Your task to perform on an android device: toggle show notifications on the lock screen Image 0: 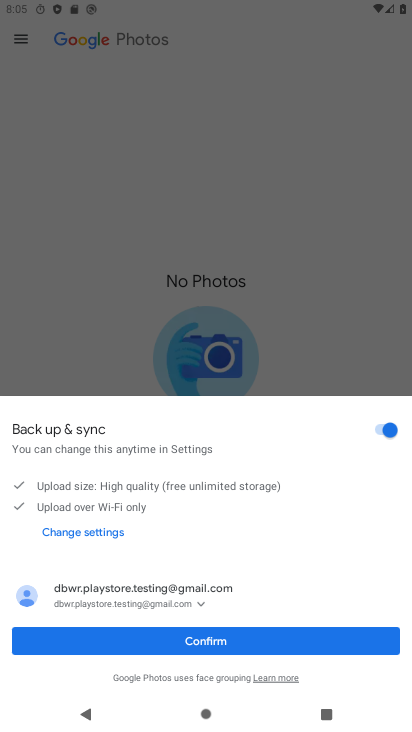
Step 0: press home button
Your task to perform on an android device: toggle show notifications on the lock screen Image 1: 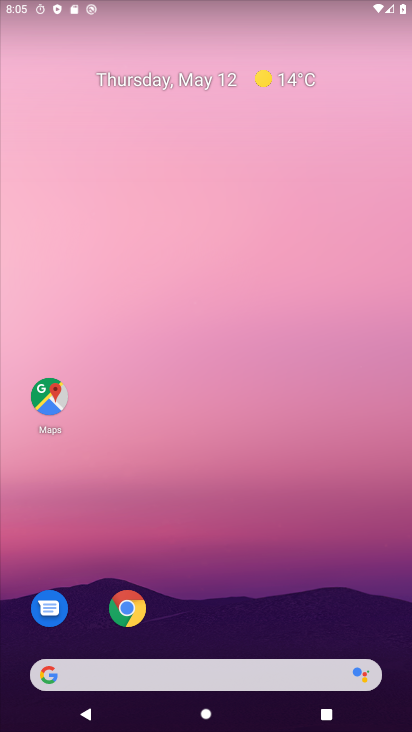
Step 1: drag from (270, 591) to (270, 58)
Your task to perform on an android device: toggle show notifications on the lock screen Image 2: 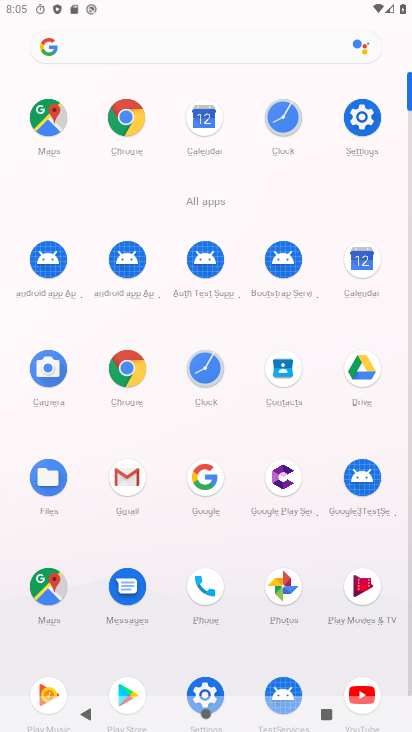
Step 2: click (352, 118)
Your task to perform on an android device: toggle show notifications on the lock screen Image 3: 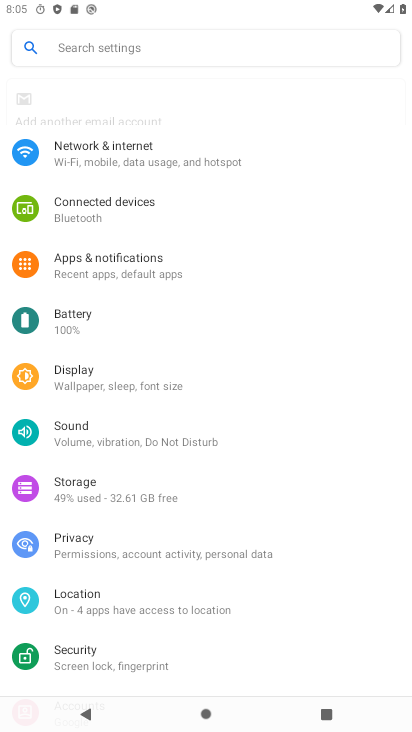
Step 3: click (365, 116)
Your task to perform on an android device: toggle show notifications on the lock screen Image 4: 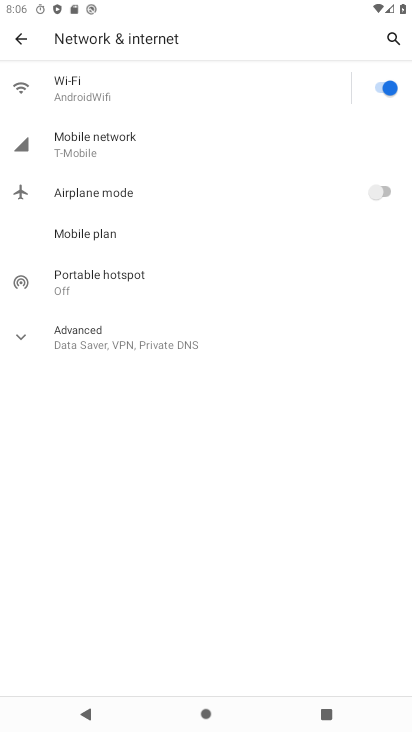
Step 4: press home button
Your task to perform on an android device: toggle show notifications on the lock screen Image 5: 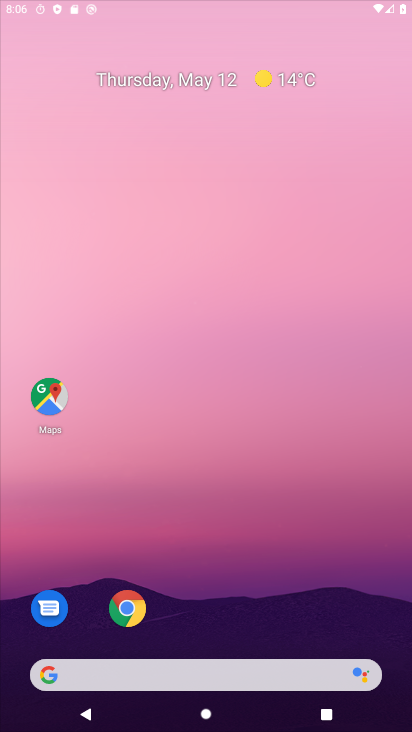
Step 5: drag from (195, 636) to (212, 176)
Your task to perform on an android device: toggle show notifications on the lock screen Image 6: 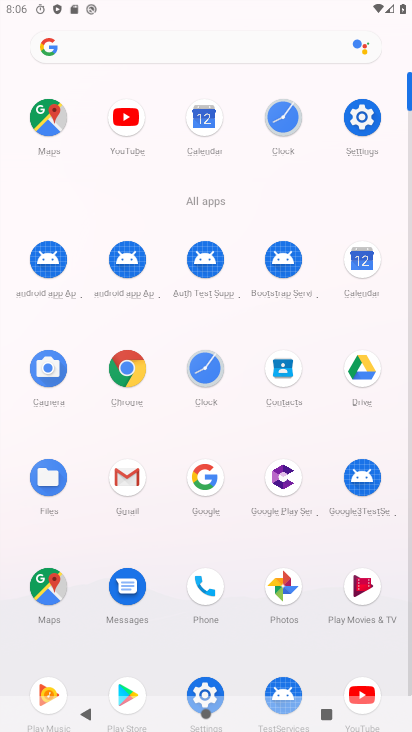
Step 6: click (370, 111)
Your task to perform on an android device: toggle show notifications on the lock screen Image 7: 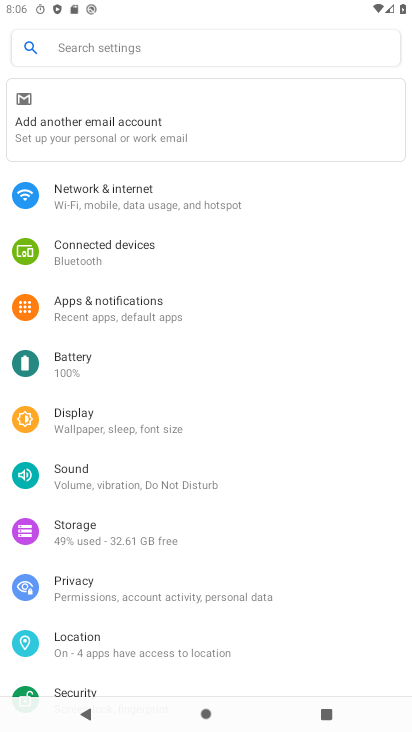
Step 7: click (138, 310)
Your task to perform on an android device: toggle show notifications on the lock screen Image 8: 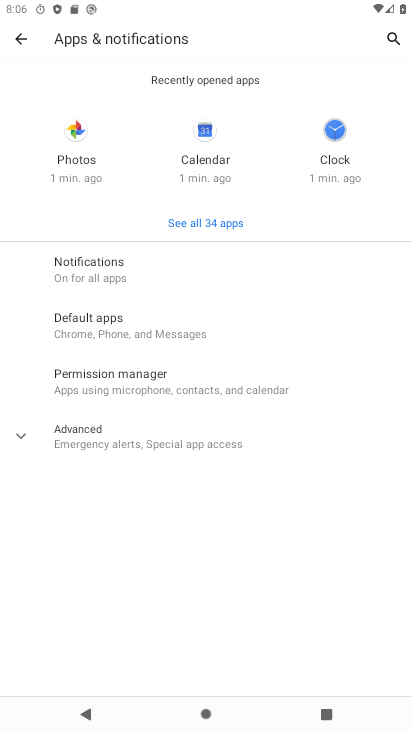
Step 8: click (119, 280)
Your task to perform on an android device: toggle show notifications on the lock screen Image 9: 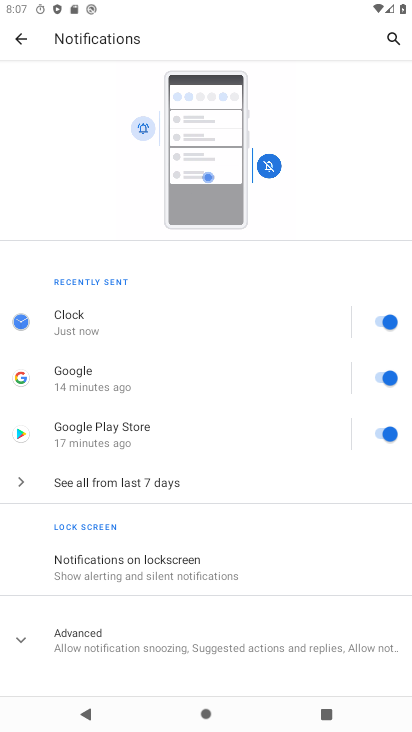
Step 9: click (163, 574)
Your task to perform on an android device: toggle show notifications on the lock screen Image 10: 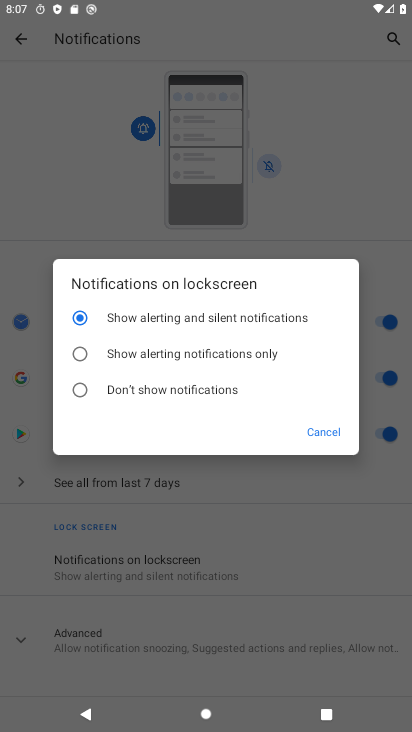
Step 10: click (84, 353)
Your task to perform on an android device: toggle show notifications on the lock screen Image 11: 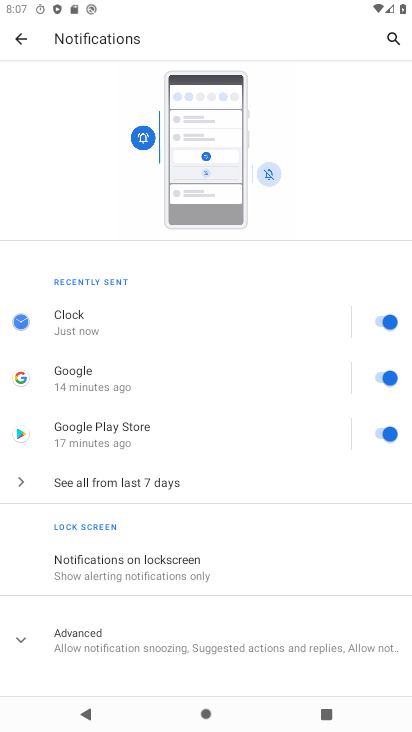
Step 11: task complete